Your task to perform on an android device: change your default location settings in chrome Image 0: 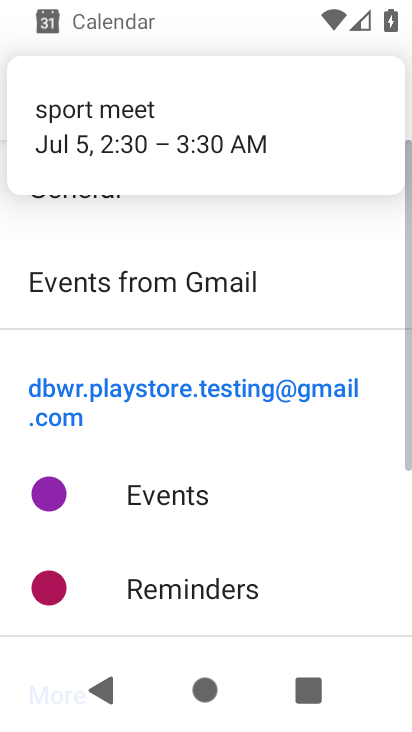
Step 0: press home button
Your task to perform on an android device: change your default location settings in chrome Image 1: 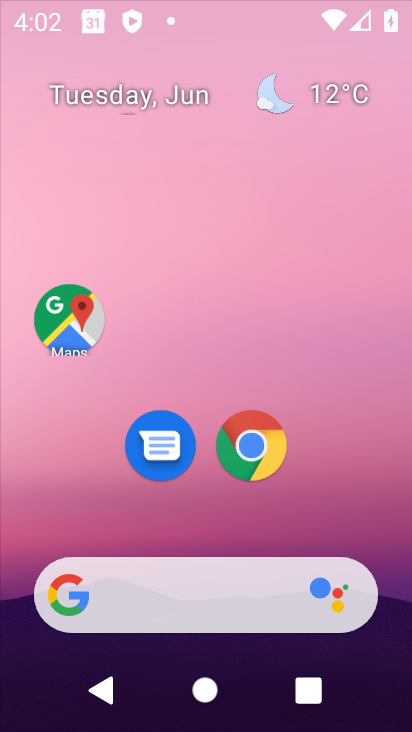
Step 1: press home button
Your task to perform on an android device: change your default location settings in chrome Image 2: 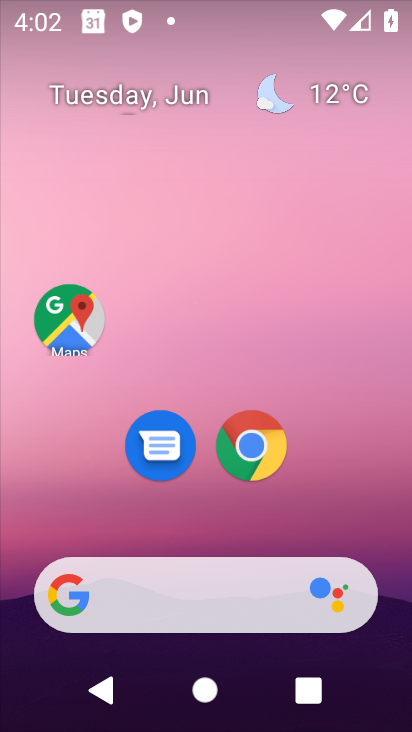
Step 2: drag from (353, 527) to (410, 103)
Your task to perform on an android device: change your default location settings in chrome Image 3: 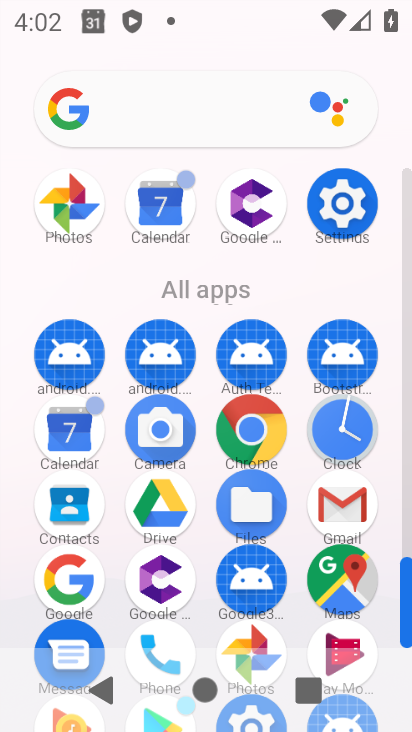
Step 3: click (245, 413)
Your task to perform on an android device: change your default location settings in chrome Image 4: 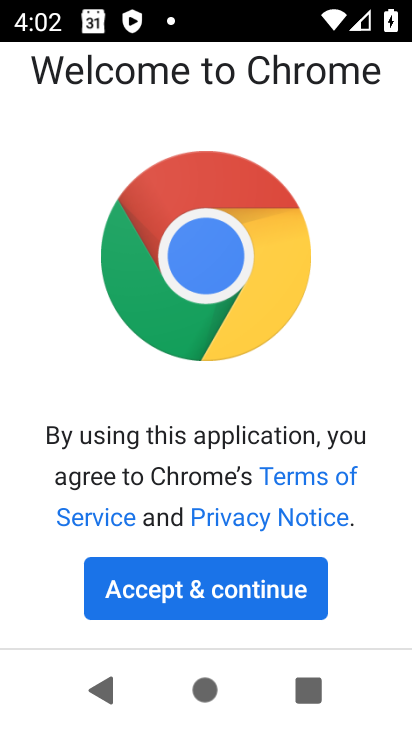
Step 4: click (212, 599)
Your task to perform on an android device: change your default location settings in chrome Image 5: 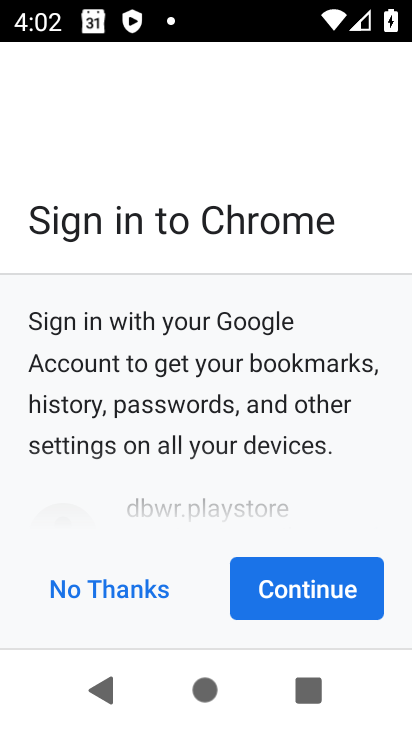
Step 5: click (142, 582)
Your task to perform on an android device: change your default location settings in chrome Image 6: 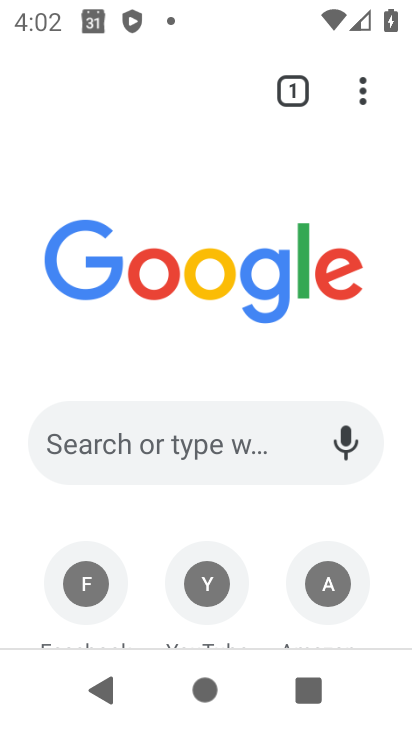
Step 6: drag from (356, 98) to (113, 477)
Your task to perform on an android device: change your default location settings in chrome Image 7: 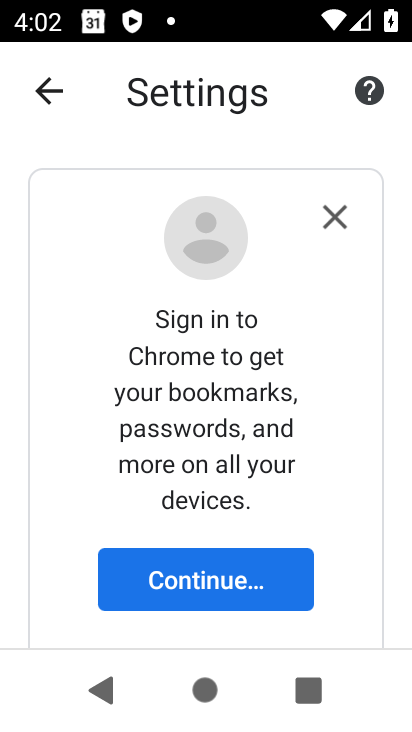
Step 7: click (177, 596)
Your task to perform on an android device: change your default location settings in chrome Image 8: 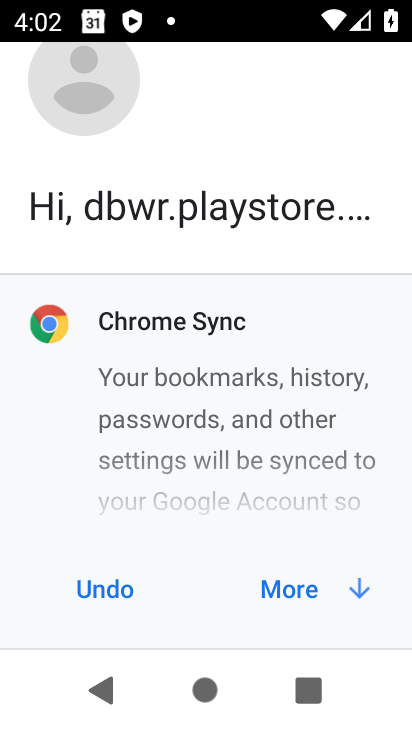
Step 8: drag from (183, 555) to (212, 181)
Your task to perform on an android device: change your default location settings in chrome Image 9: 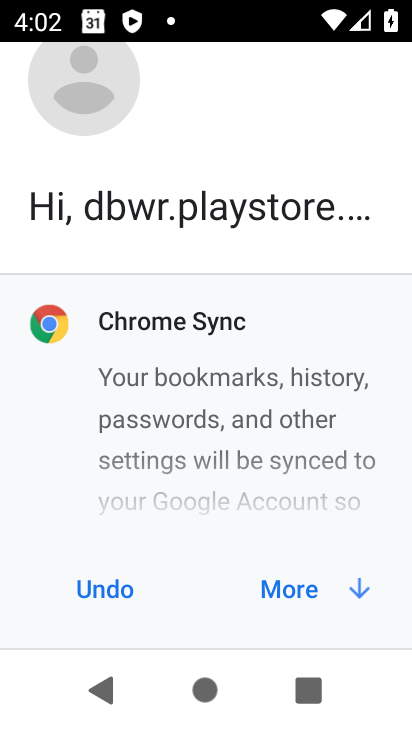
Step 9: click (275, 595)
Your task to perform on an android device: change your default location settings in chrome Image 10: 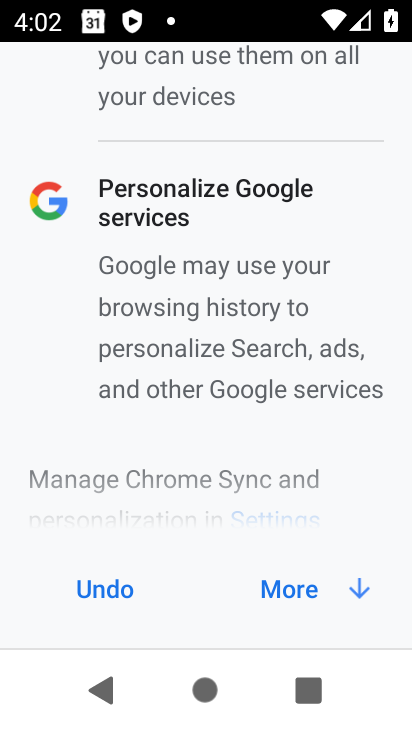
Step 10: click (275, 595)
Your task to perform on an android device: change your default location settings in chrome Image 11: 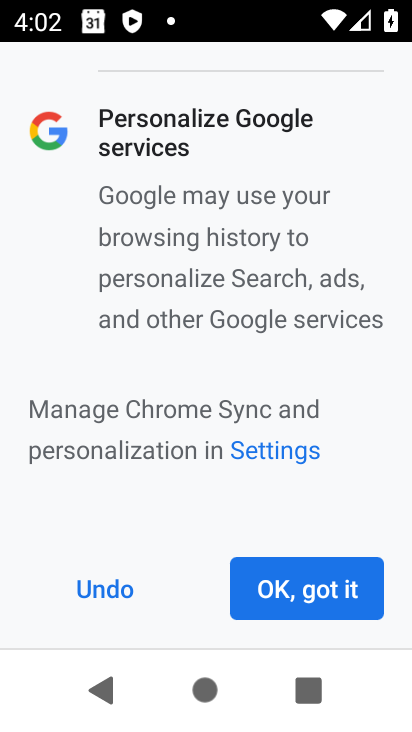
Step 11: click (275, 595)
Your task to perform on an android device: change your default location settings in chrome Image 12: 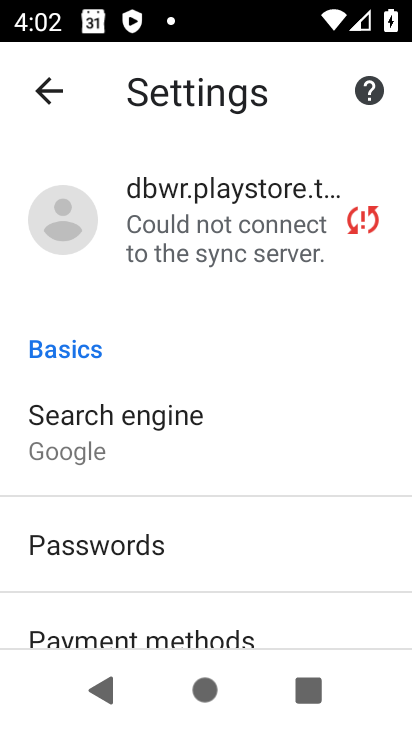
Step 12: click (143, 428)
Your task to perform on an android device: change your default location settings in chrome Image 13: 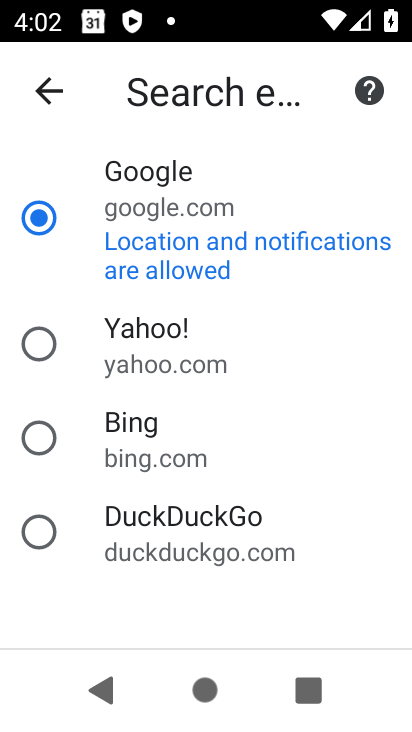
Step 13: task complete